Your task to perform on an android device: add a contact Image 0: 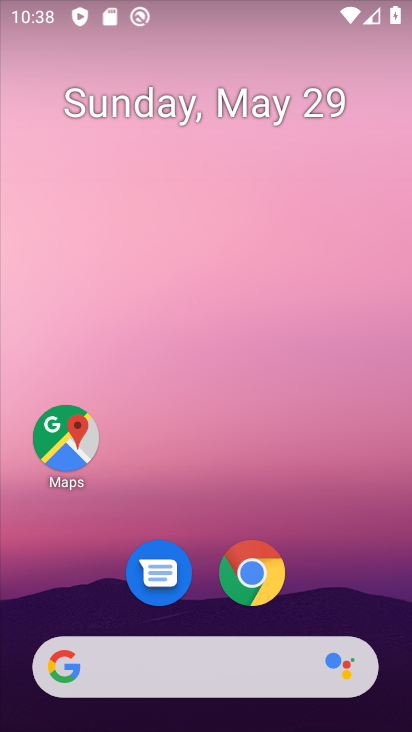
Step 0: drag from (353, 565) to (197, 32)
Your task to perform on an android device: add a contact Image 1: 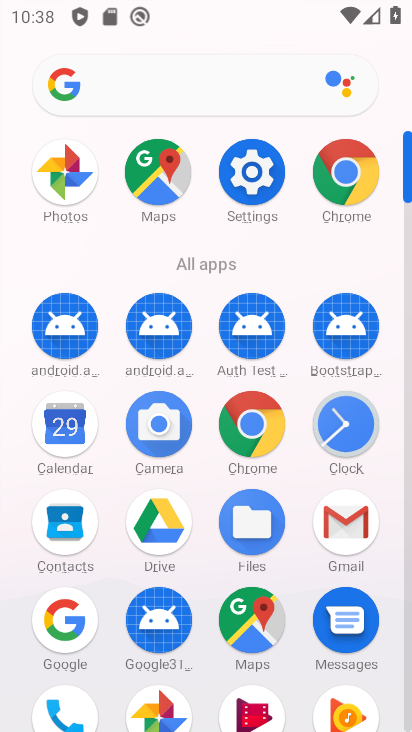
Step 1: click (65, 524)
Your task to perform on an android device: add a contact Image 2: 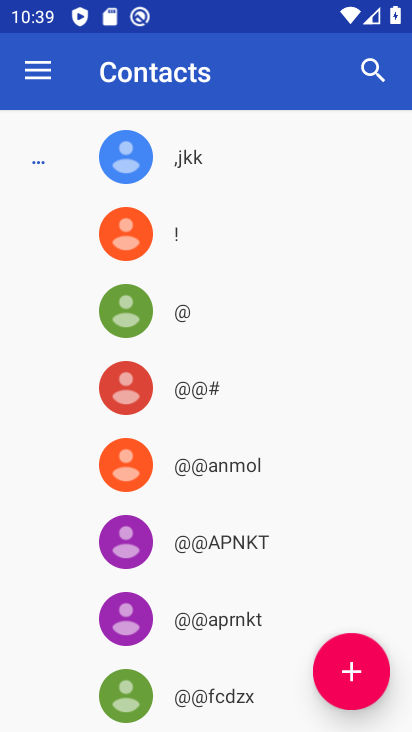
Step 2: click (369, 661)
Your task to perform on an android device: add a contact Image 3: 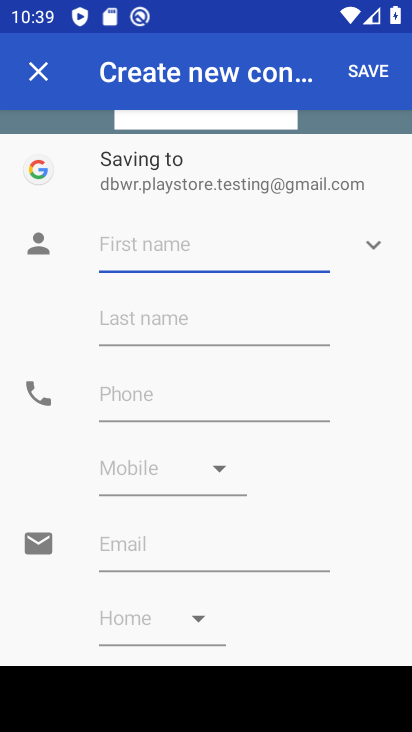
Step 3: click (182, 252)
Your task to perform on an android device: add a contact Image 4: 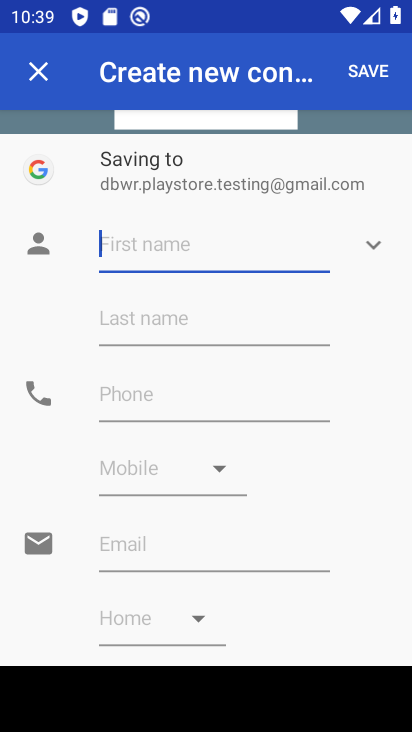
Step 4: type "ghfhgf"
Your task to perform on an android device: add a contact Image 5: 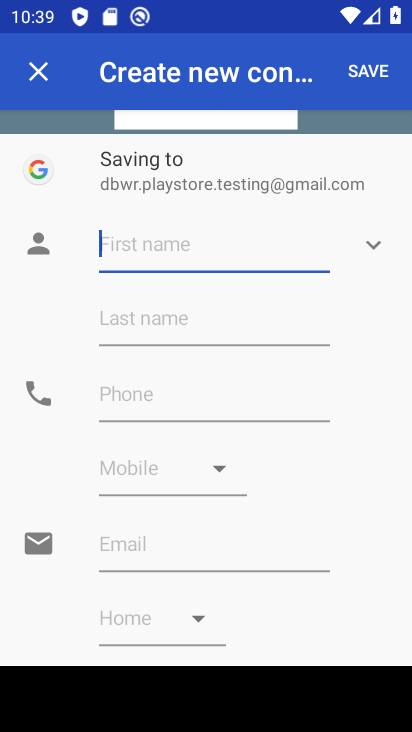
Step 5: click (266, 317)
Your task to perform on an android device: add a contact Image 6: 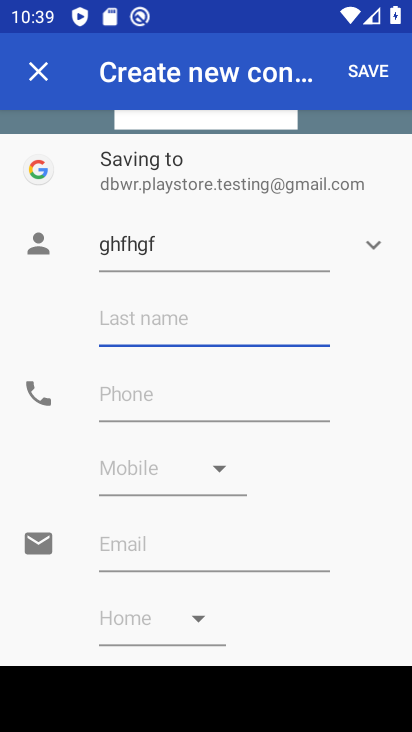
Step 6: type "hjghgjh"
Your task to perform on an android device: add a contact Image 7: 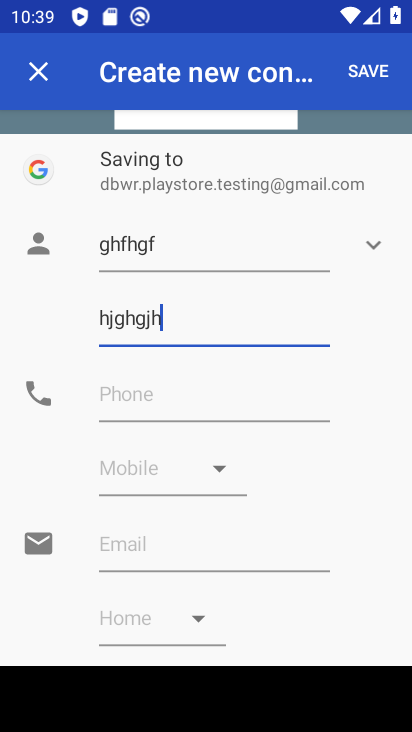
Step 7: type ""
Your task to perform on an android device: add a contact Image 8: 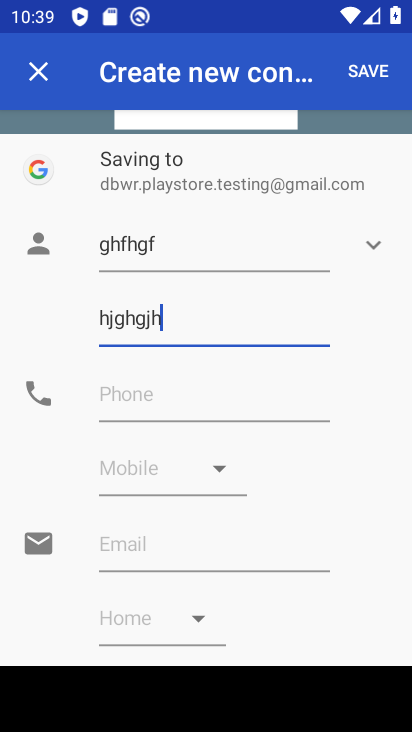
Step 8: click (260, 395)
Your task to perform on an android device: add a contact Image 9: 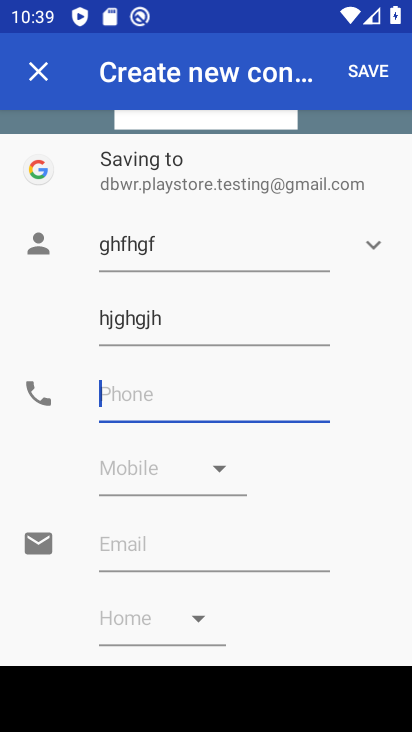
Step 9: type "67576565"
Your task to perform on an android device: add a contact Image 10: 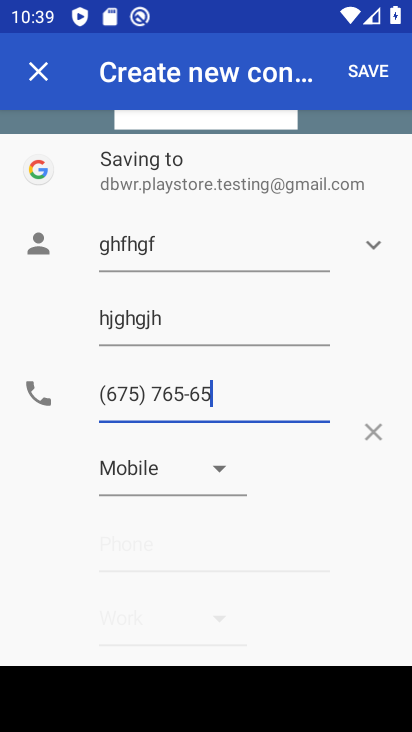
Step 10: type ""
Your task to perform on an android device: add a contact Image 11: 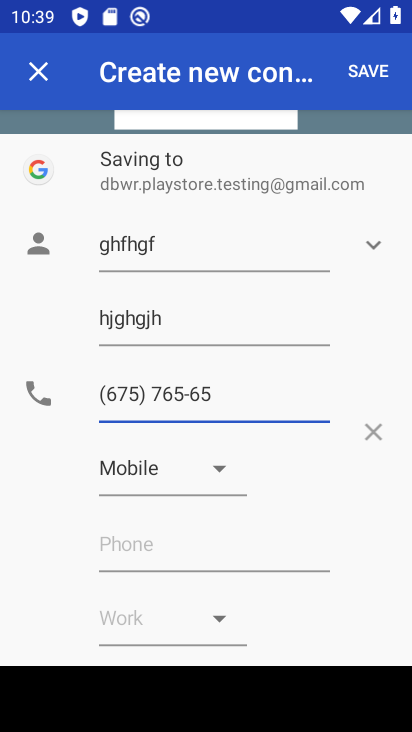
Step 11: click (360, 69)
Your task to perform on an android device: add a contact Image 12: 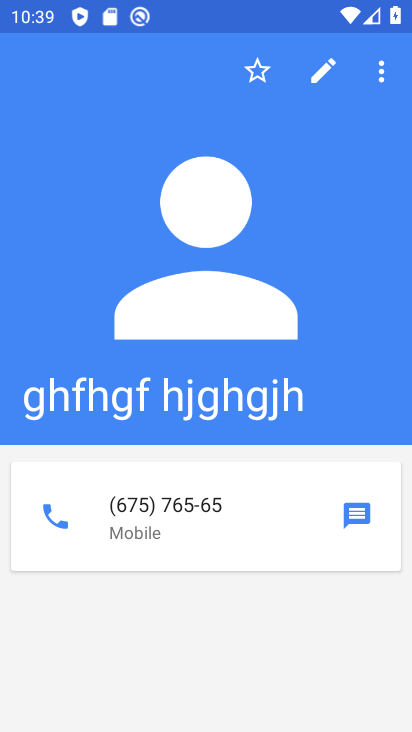
Step 12: task complete